Your task to perform on an android device: Is it going to rain tomorrow? Image 0: 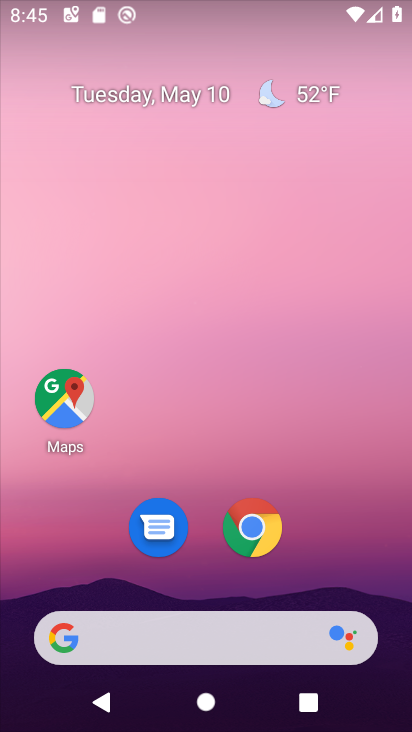
Step 0: click (266, 531)
Your task to perform on an android device: Is it going to rain tomorrow? Image 1: 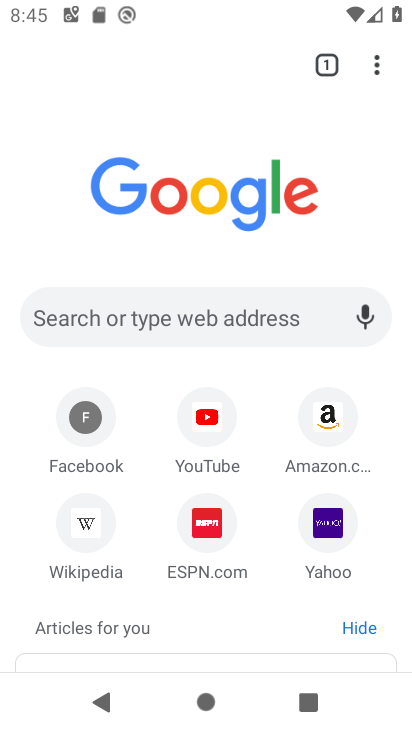
Step 1: click (162, 317)
Your task to perform on an android device: Is it going to rain tomorrow? Image 2: 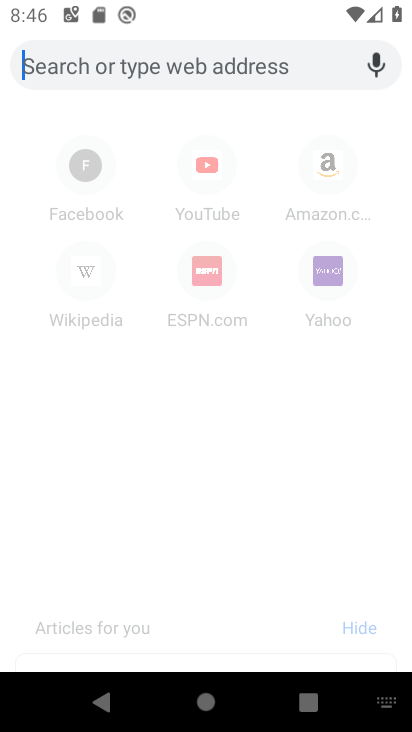
Step 2: type "is it going to rain tomorrow?"
Your task to perform on an android device: Is it going to rain tomorrow? Image 3: 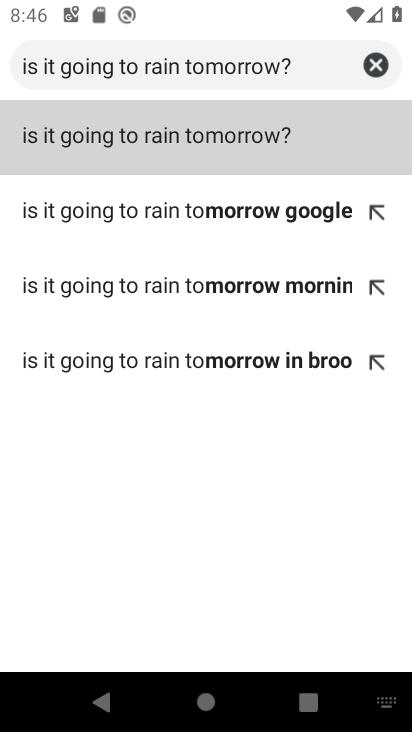
Step 3: click (148, 152)
Your task to perform on an android device: Is it going to rain tomorrow? Image 4: 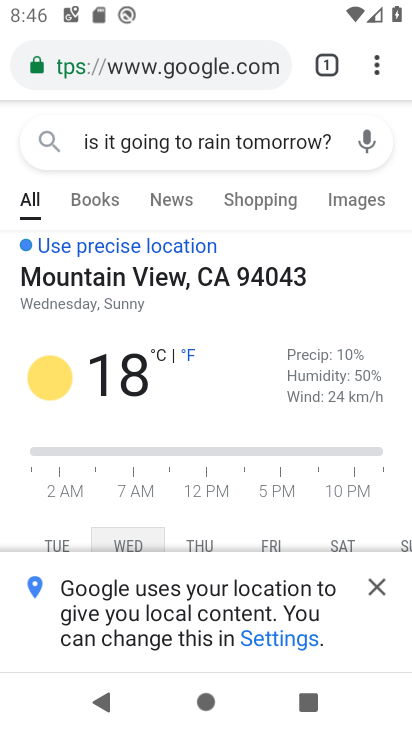
Step 4: task complete